Your task to perform on an android device: How much does a 2 bedroom apartment rent for in Washington DC? Image 0: 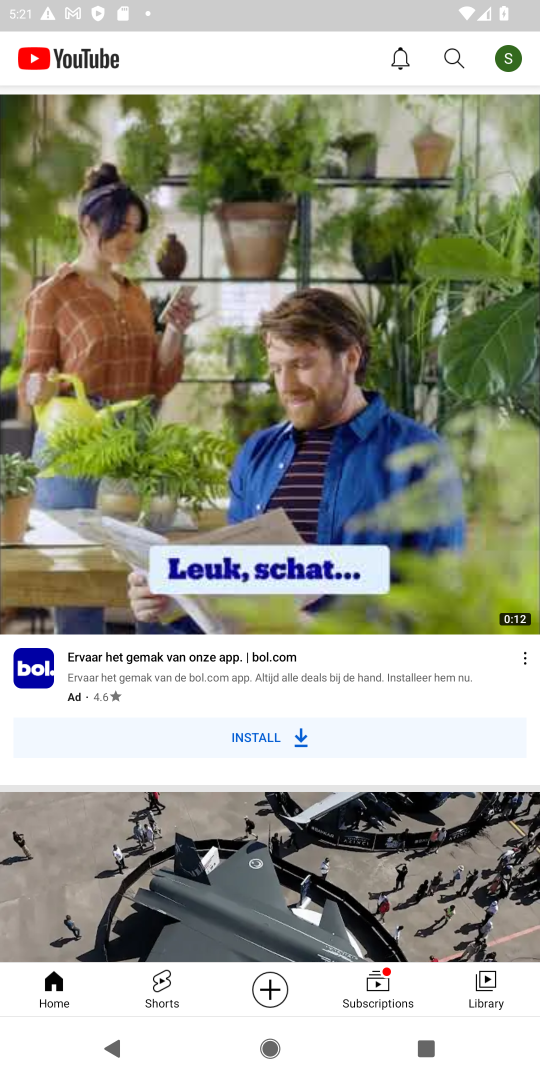
Step 0: press home button
Your task to perform on an android device: How much does a 2 bedroom apartment rent for in Washington DC? Image 1: 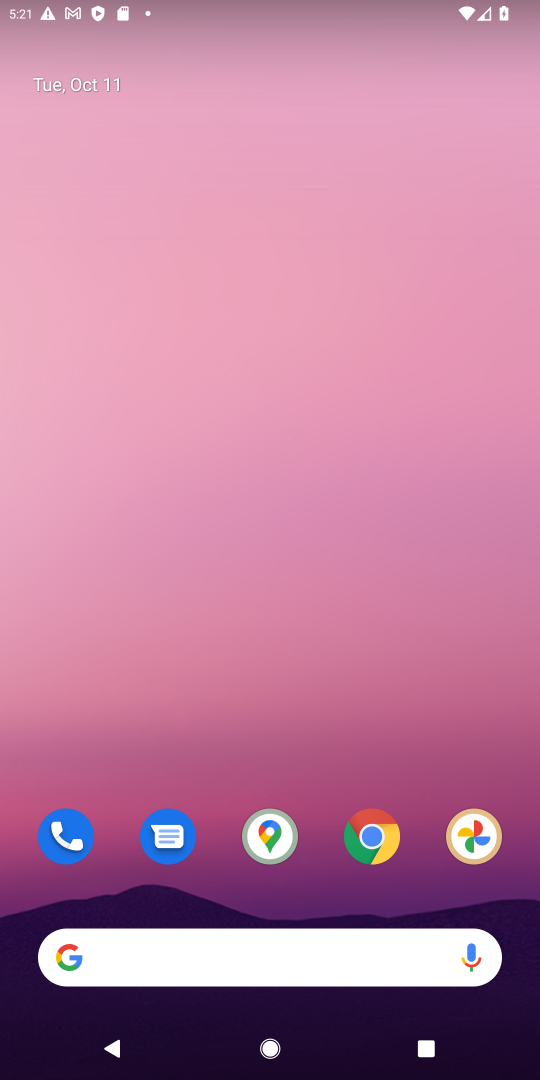
Step 1: click (371, 836)
Your task to perform on an android device: How much does a 2 bedroom apartment rent for in Washington DC? Image 2: 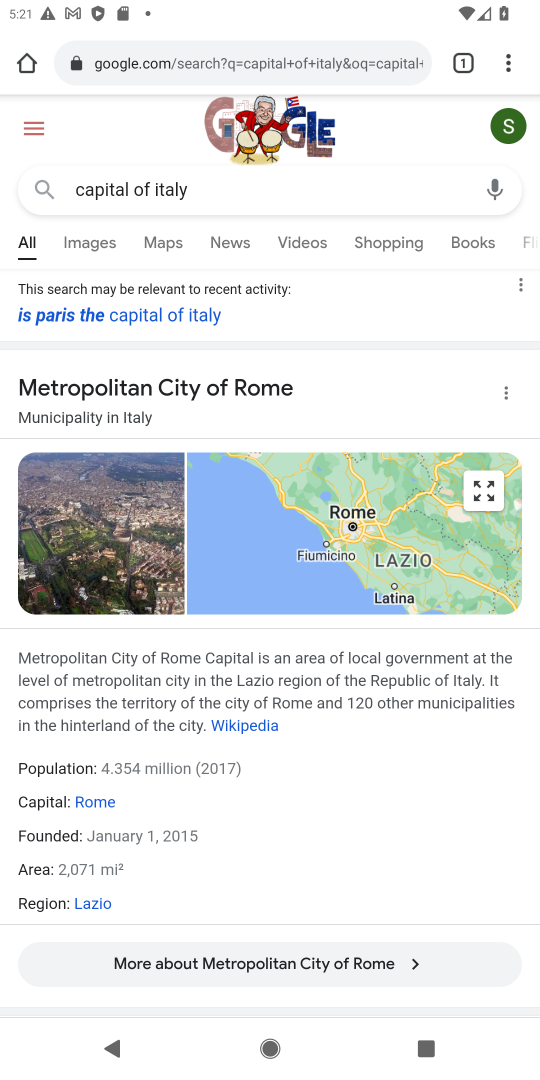
Step 2: click (205, 39)
Your task to perform on an android device: How much does a 2 bedroom apartment rent for in Washington DC? Image 3: 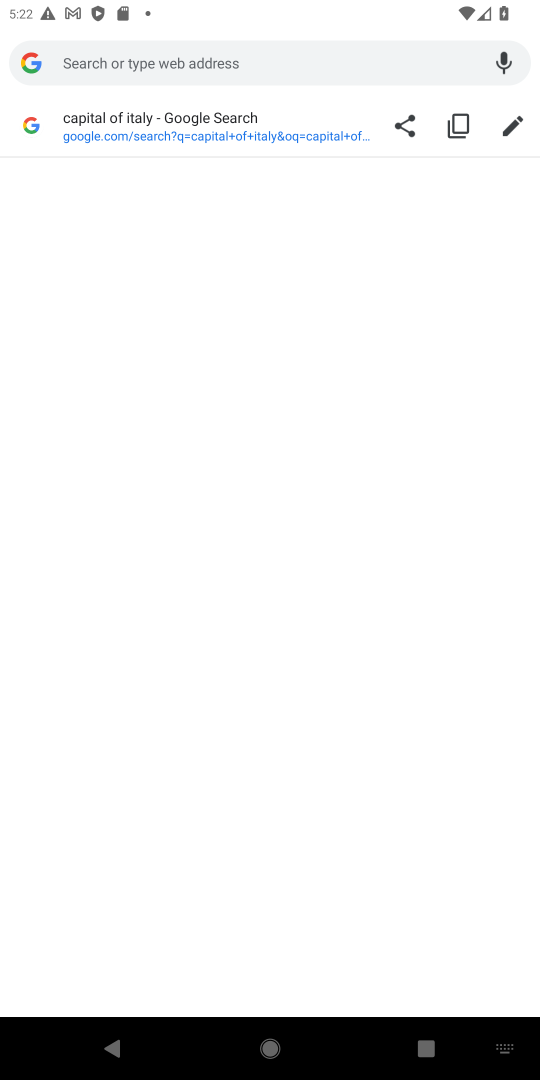
Step 3: type " 2 bedroom apartment rent for in Washington DC?"
Your task to perform on an android device: How much does a 2 bedroom apartment rent for in Washington DC? Image 4: 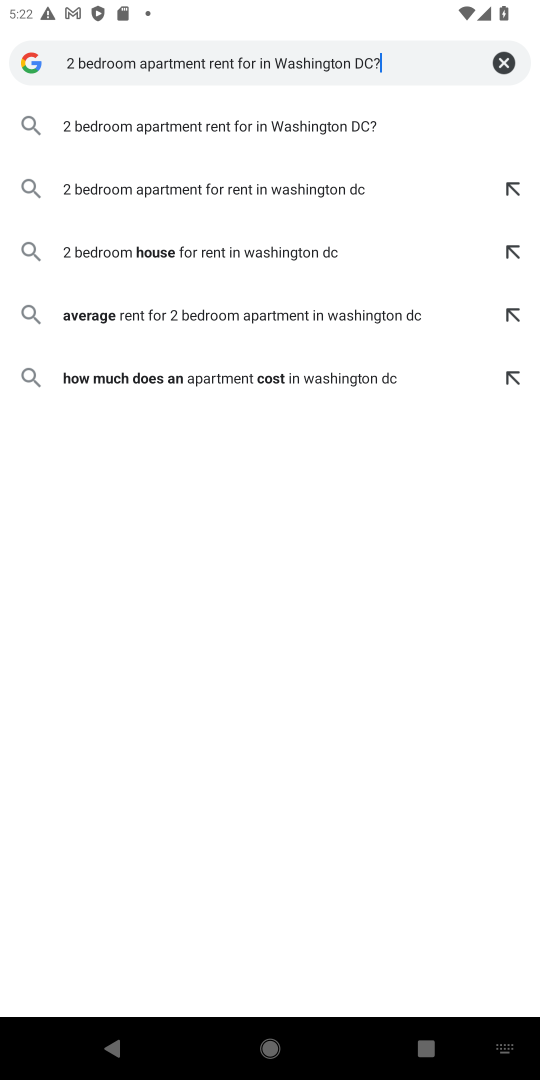
Step 4: click (154, 136)
Your task to perform on an android device: How much does a 2 bedroom apartment rent for in Washington DC? Image 5: 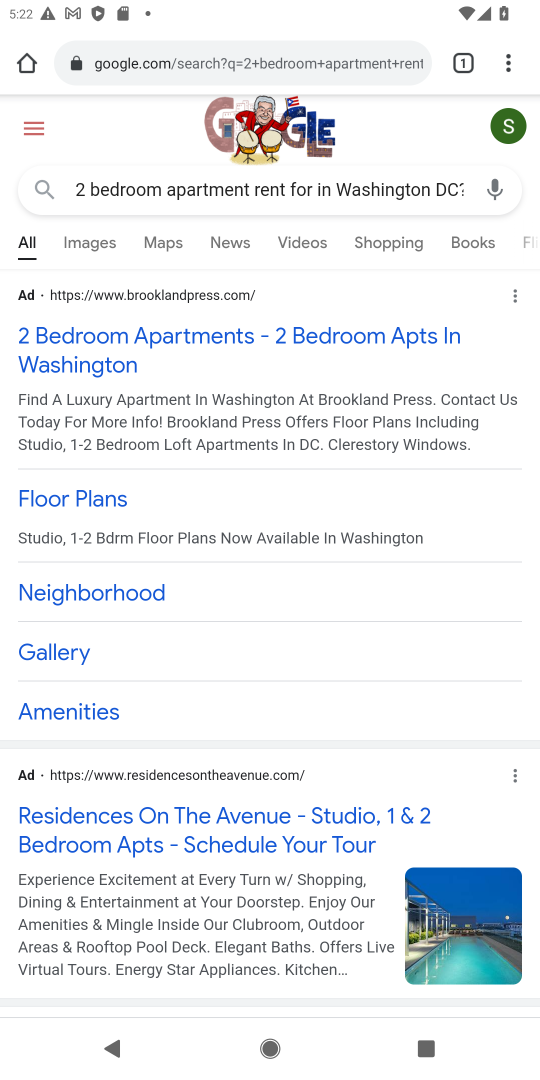
Step 5: click (117, 351)
Your task to perform on an android device: How much does a 2 bedroom apartment rent for in Washington DC? Image 6: 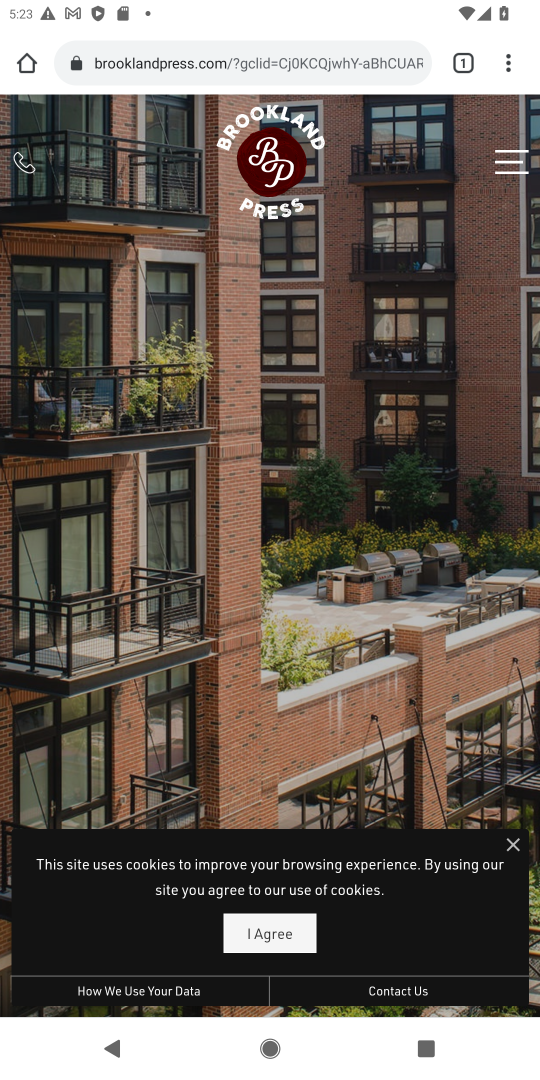
Step 6: click (250, 937)
Your task to perform on an android device: How much does a 2 bedroom apartment rent for in Washington DC? Image 7: 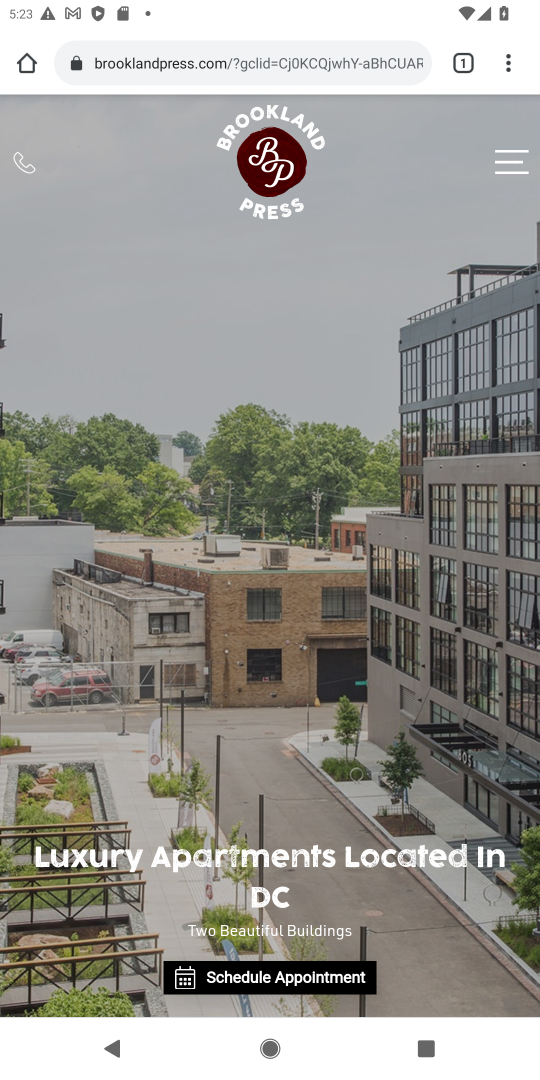
Step 7: task complete